Your task to perform on an android device: Play the last video I watched on Youtube Image 0: 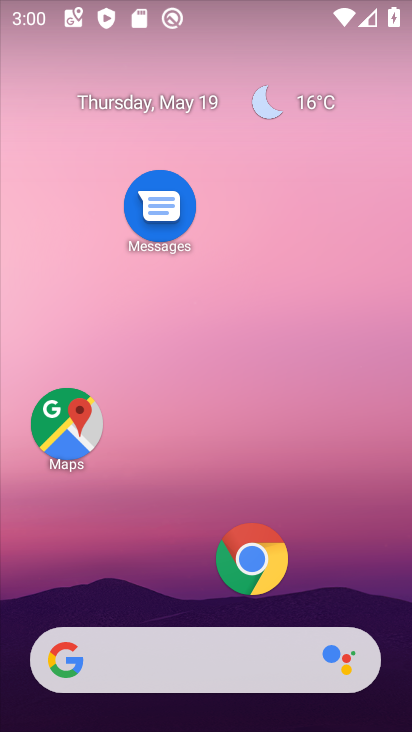
Step 0: drag from (160, 610) to (203, 271)
Your task to perform on an android device: Play the last video I watched on Youtube Image 1: 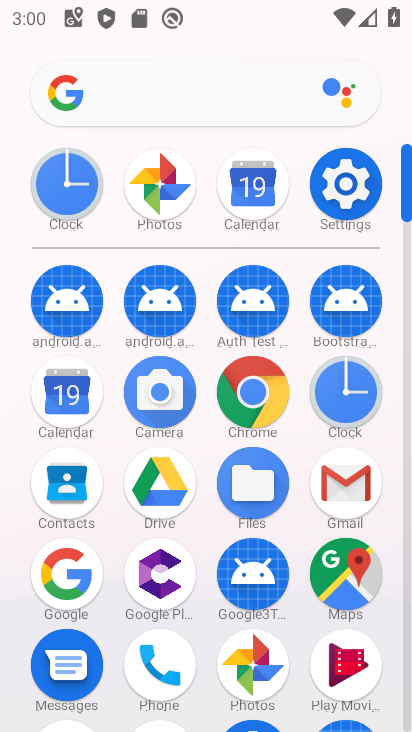
Step 1: drag from (202, 577) to (187, 290)
Your task to perform on an android device: Play the last video I watched on Youtube Image 2: 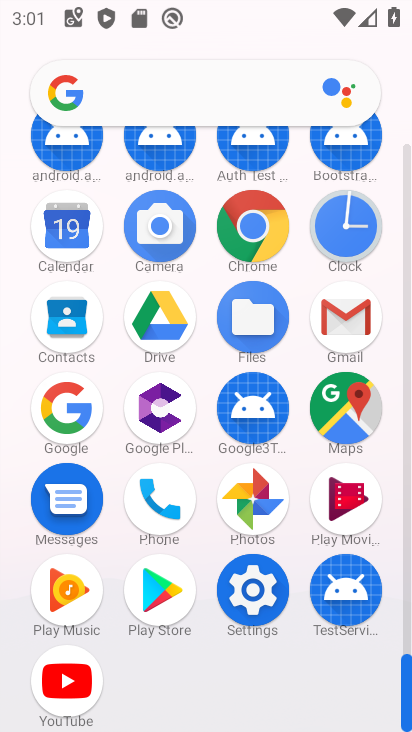
Step 2: click (65, 688)
Your task to perform on an android device: Play the last video I watched on Youtube Image 3: 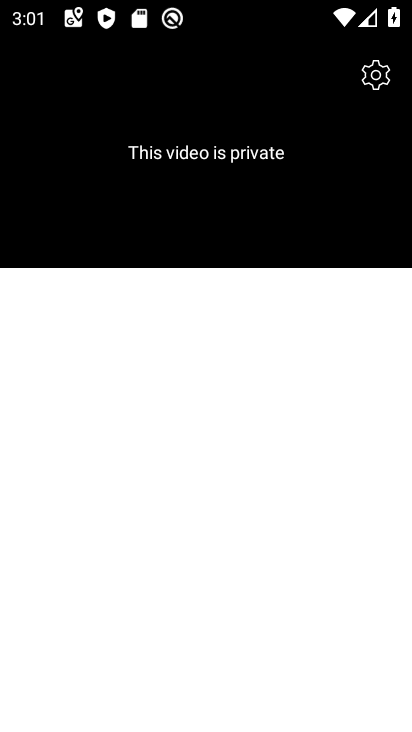
Step 3: press back button
Your task to perform on an android device: Play the last video I watched on Youtube Image 4: 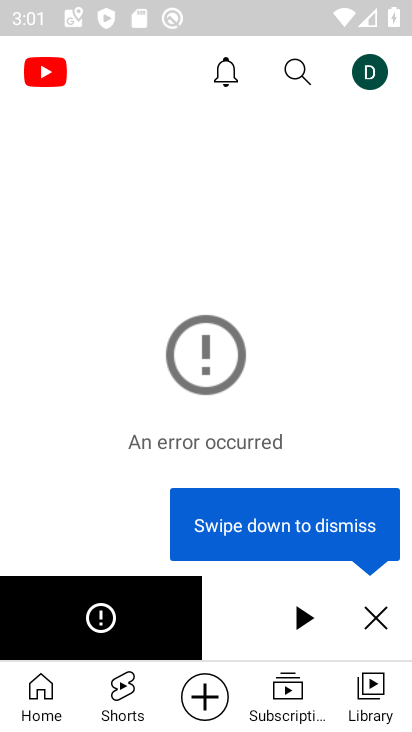
Step 4: click (373, 613)
Your task to perform on an android device: Play the last video I watched on Youtube Image 5: 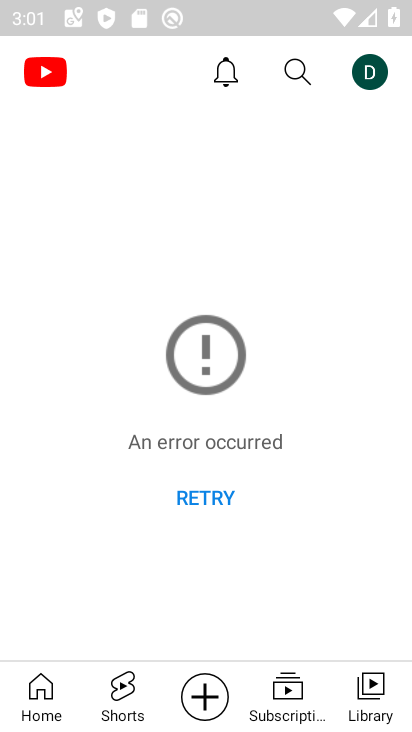
Step 5: click (356, 688)
Your task to perform on an android device: Play the last video I watched on Youtube Image 6: 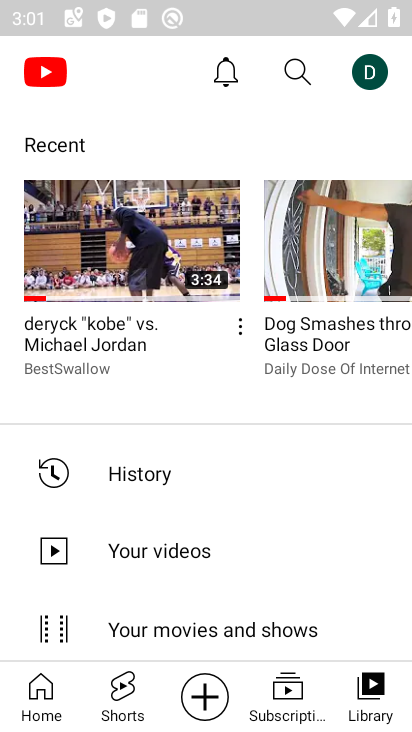
Step 6: click (131, 484)
Your task to perform on an android device: Play the last video I watched on Youtube Image 7: 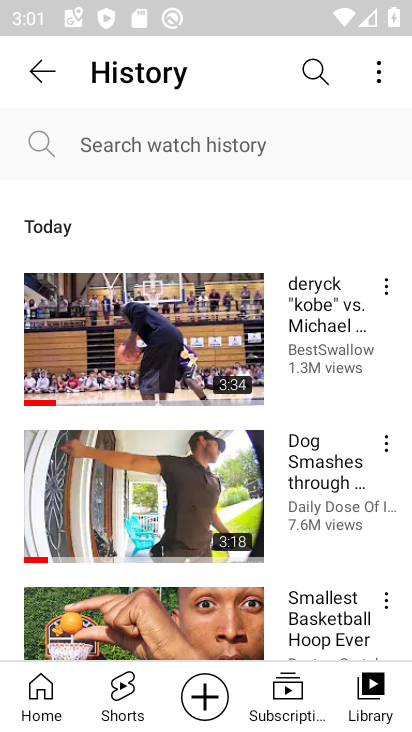
Step 7: click (213, 301)
Your task to perform on an android device: Play the last video I watched on Youtube Image 8: 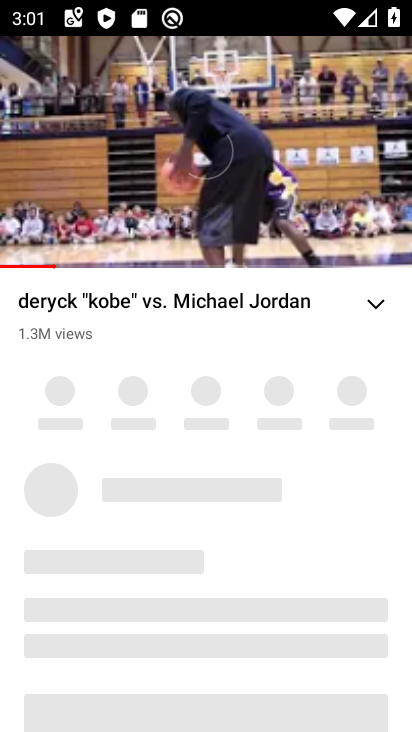
Step 8: task complete